Your task to perform on an android device: turn pop-ups off in chrome Image 0: 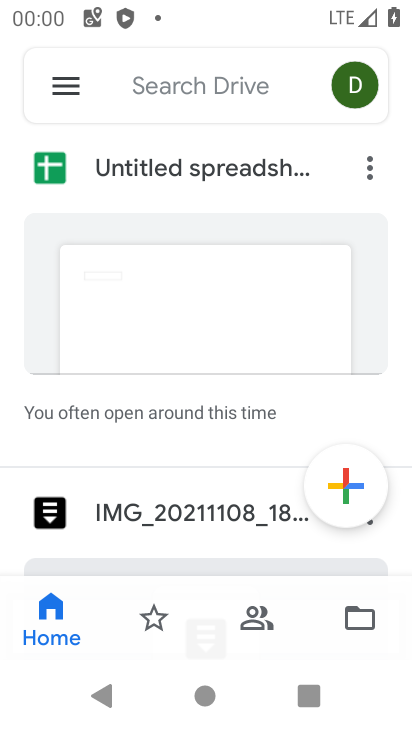
Step 0: press home button
Your task to perform on an android device: turn pop-ups off in chrome Image 1: 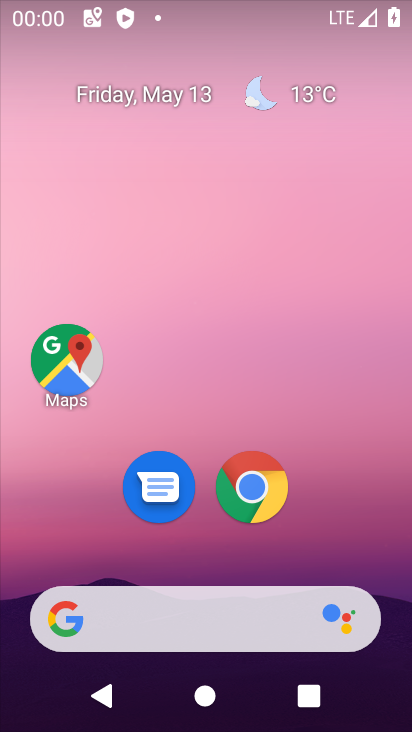
Step 1: click (264, 494)
Your task to perform on an android device: turn pop-ups off in chrome Image 2: 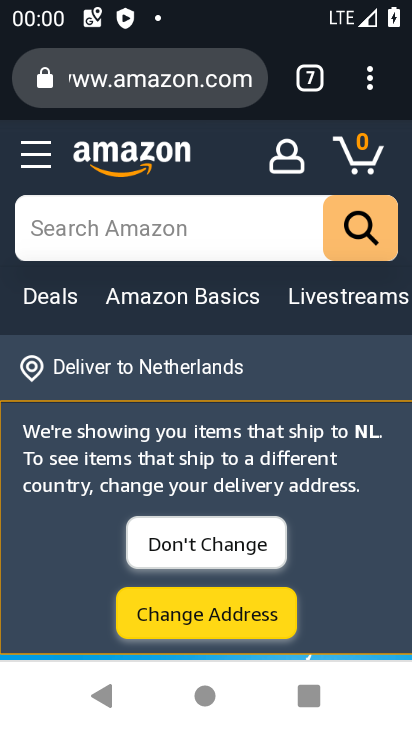
Step 2: click (394, 79)
Your task to perform on an android device: turn pop-ups off in chrome Image 3: 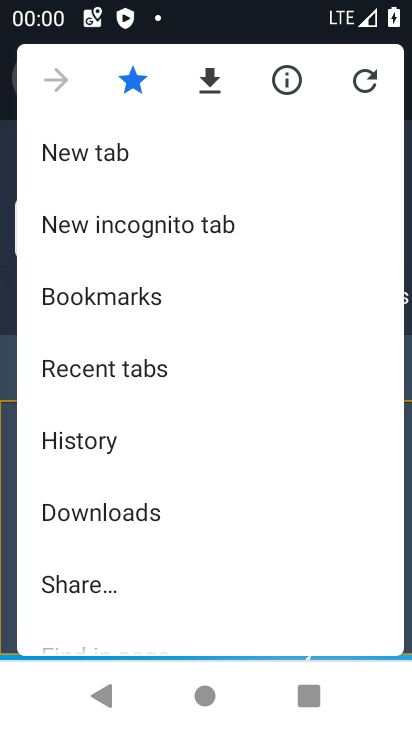
Step 3: drag from (212, 504) to (259, 139)
Your task to perform on an android device: turn pop-ups off in chrome Image 4: 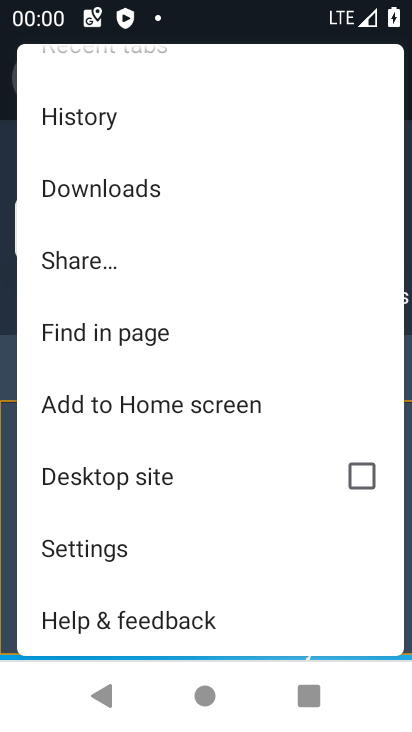
Step 4: click (93, 567)
Your task to perform on an android device: turn pop-ups off in chrome Image 5: 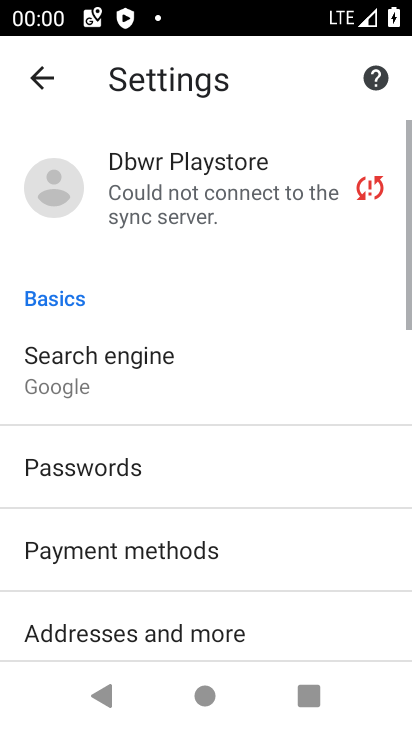
Step 5: drag from (172, 487) to (237, 27)
Your task to perform on an android device: turn pop-ups off in chrome Image 6: 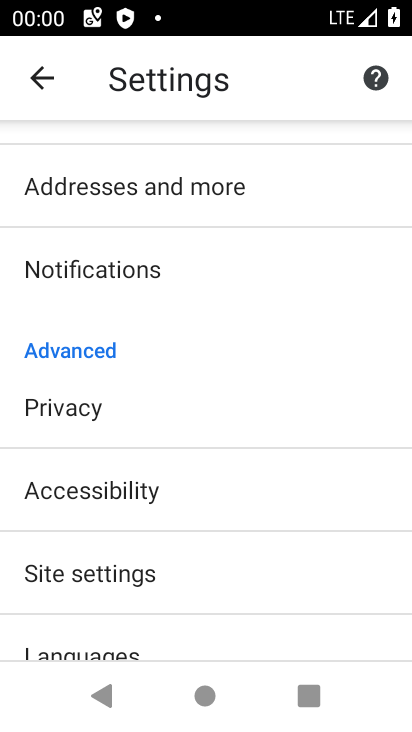
Step 6: drag from (74, 533) to (225, 60)
Your task to perform on an android device: turn pop-ups off in chrome Image 7: 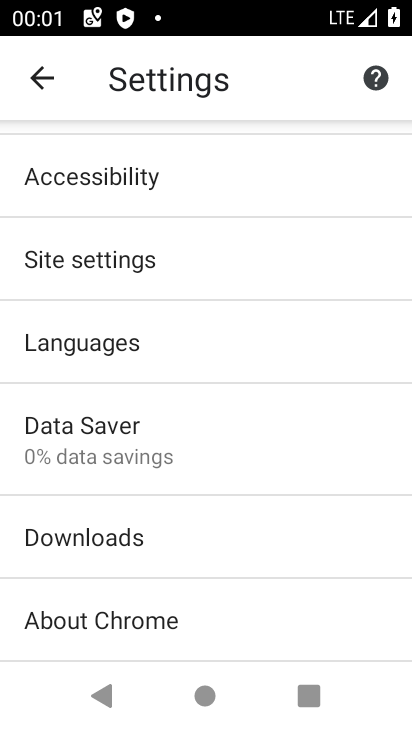
Step 7: click (47, 289)
Your task to perform on an android device: turn pop-ups off in chrome Image 8: 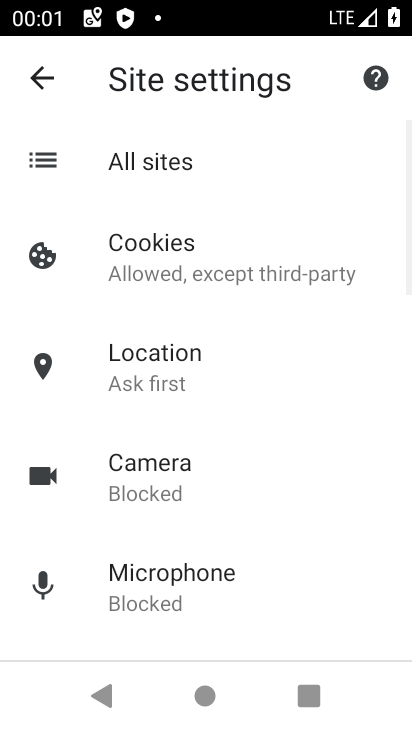
Step 8: drag from (164, 596) to (282, 71)
Your task to perform on an android device: turn pop-ups off in chrome Image 9: 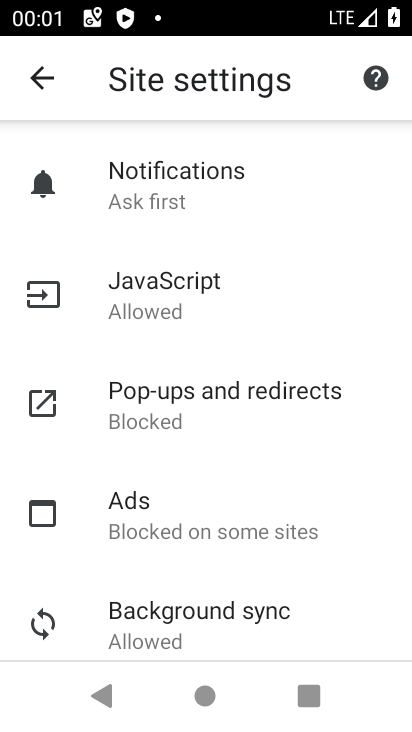
Step 9: click (170, 393)
Your task to perform on an android device: turn pop-ups off in chrome Image 10: 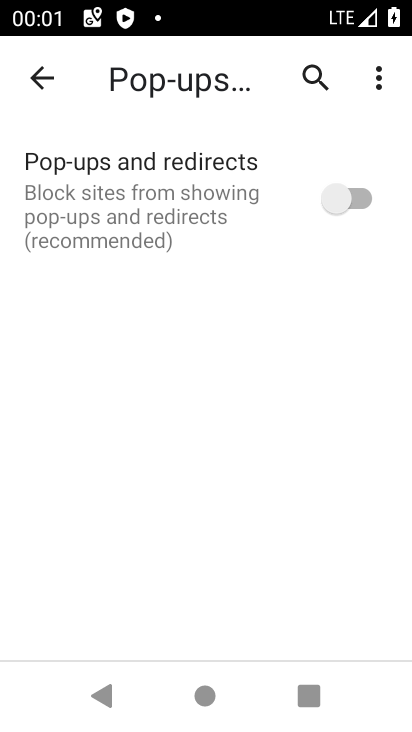
Step 10: task complete